Your task to perform on an android device: Open Google Chrome Image 0: 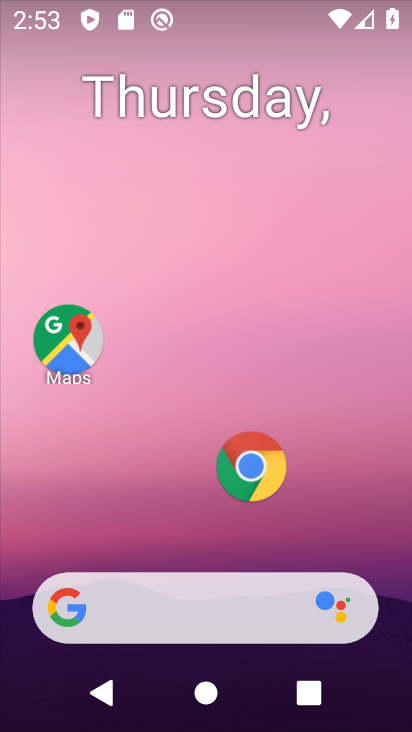
Step 0: click (252, 471)
Your task to perform on an android device: Open Google Chrome Image 1: 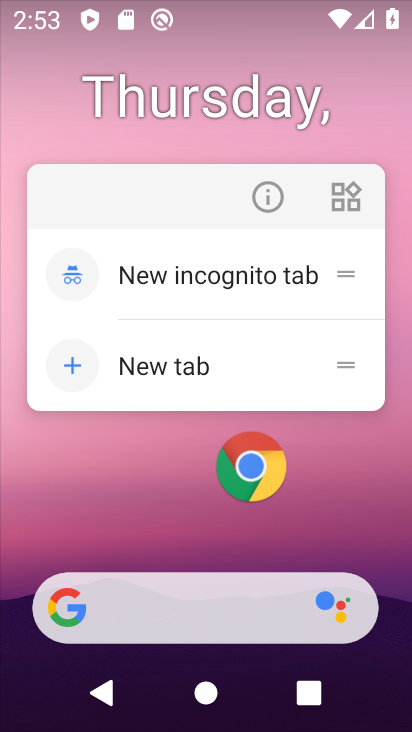
Step 1: click (250, 462)
Your task to perform on an android device: Open Google Chrome Image 2: 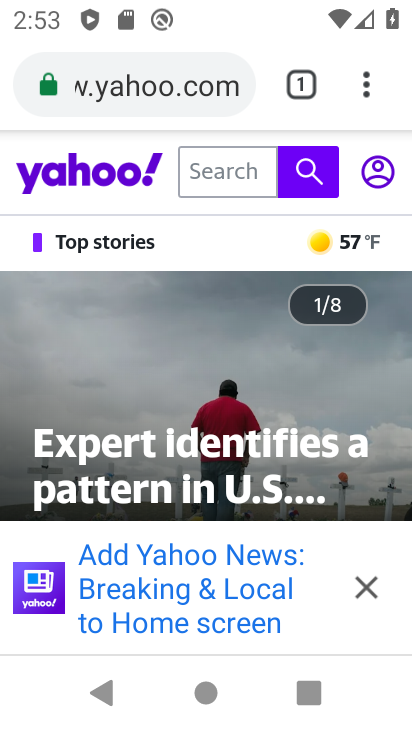
Step 2: task complete